Your task to perform on an android device: check out phone information Image 0: 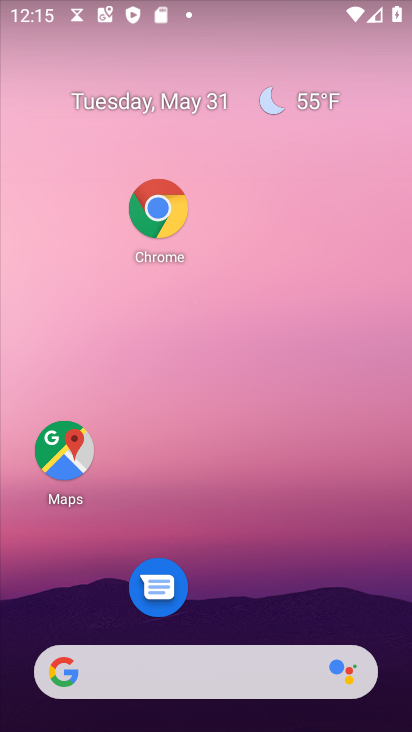
Step 0: drag from (261, 605) to (263, 205)
Your task to perform on an android device: check out phone information Image 1: 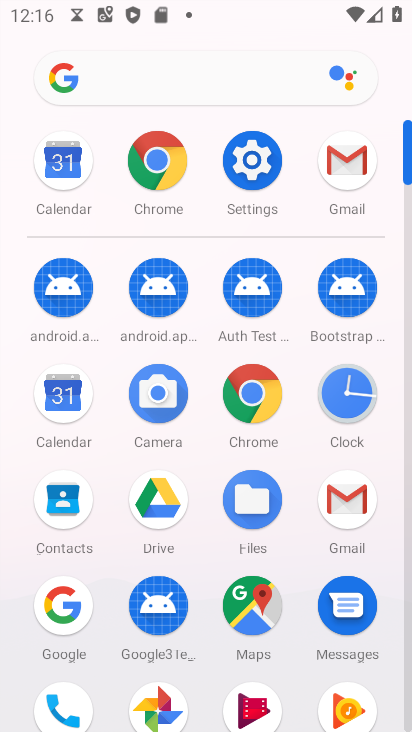
Step 1: click (66, 713)
Your task to perform on an android device: check out phone information Image 2: 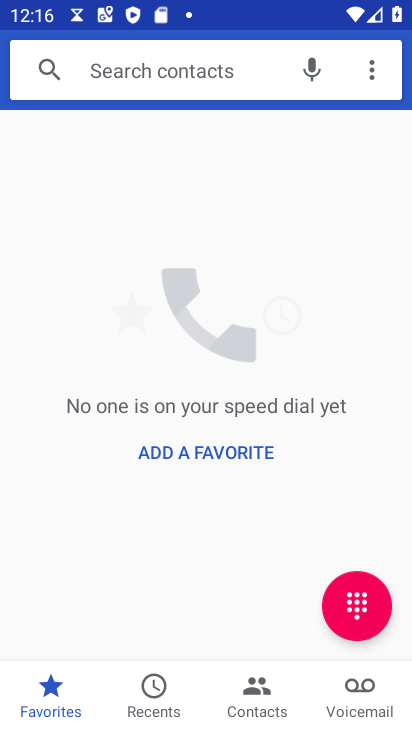
Step 2: click (375, 71)
Your task to perform on an android device: check out phone information Image 3: 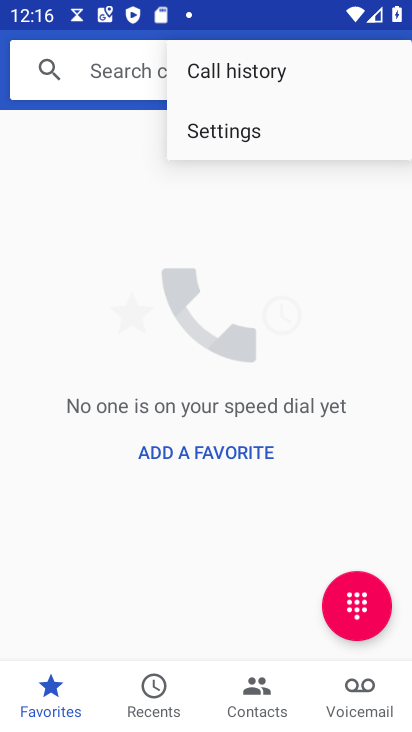
Step 3: click (258, 121)
Your task to perform on an android device: check out phone information Image 4: 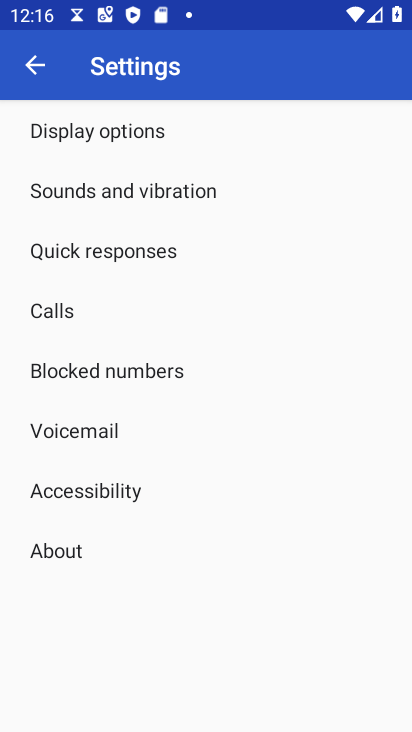
Step 4: click (85, 559)
Your task to perform on an android device: check out phone information Image 5: 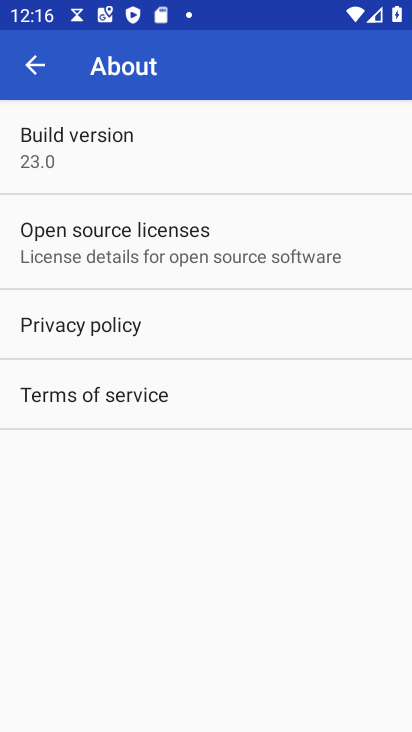
Step 5: click (238, 162)
Your task to perform on an android device: check out phone information Image 6: 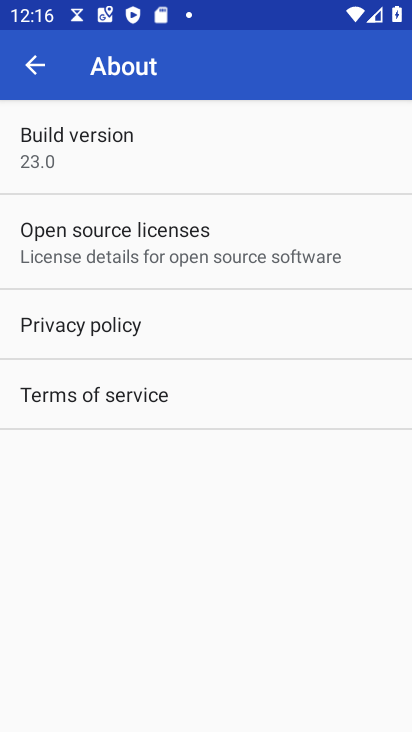
Step 6: task complete